Your task to perform on an android device: Open the phone app and click the voicemail tab. Image 0: 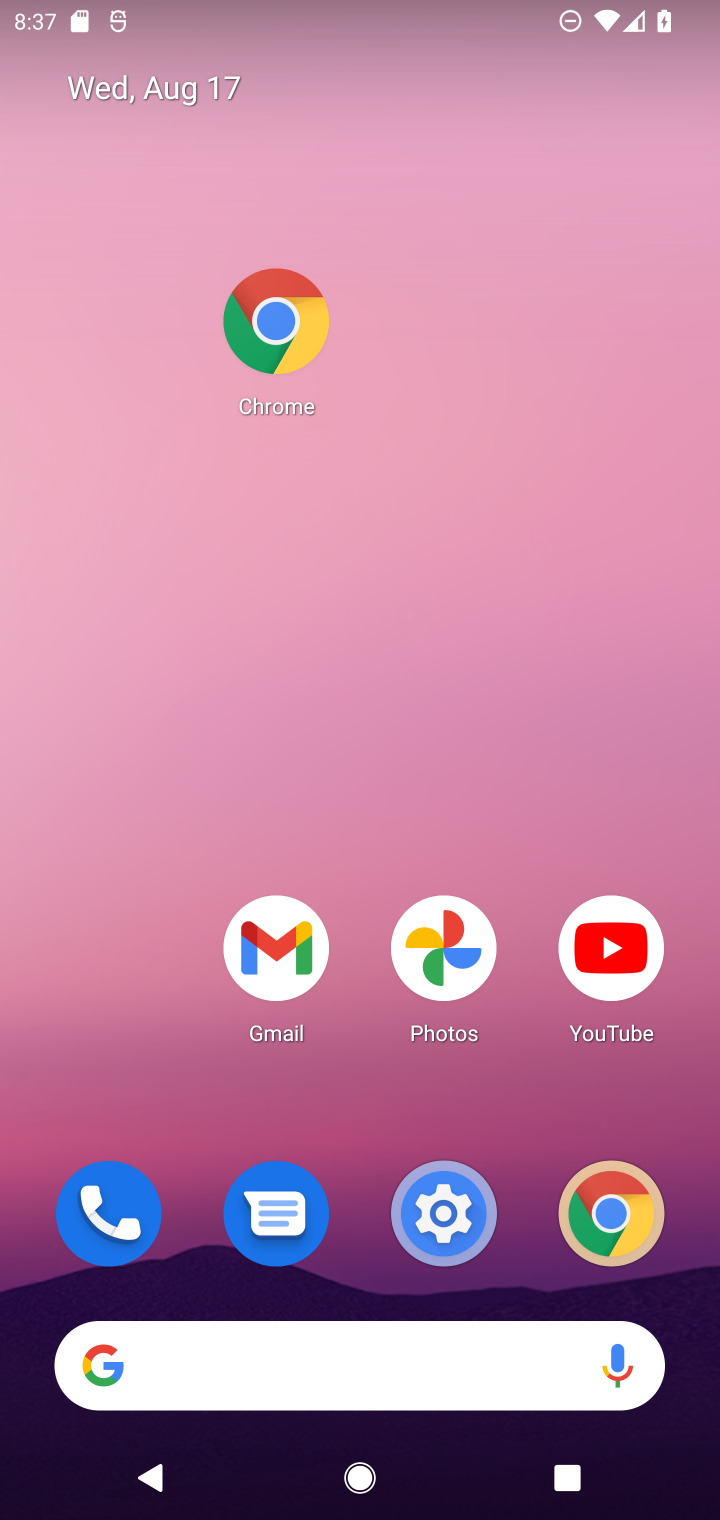
Step 0: click (447, 1206)
Your task to perform on an android device: Open the phone app and click the voicemail tab. Image 1: 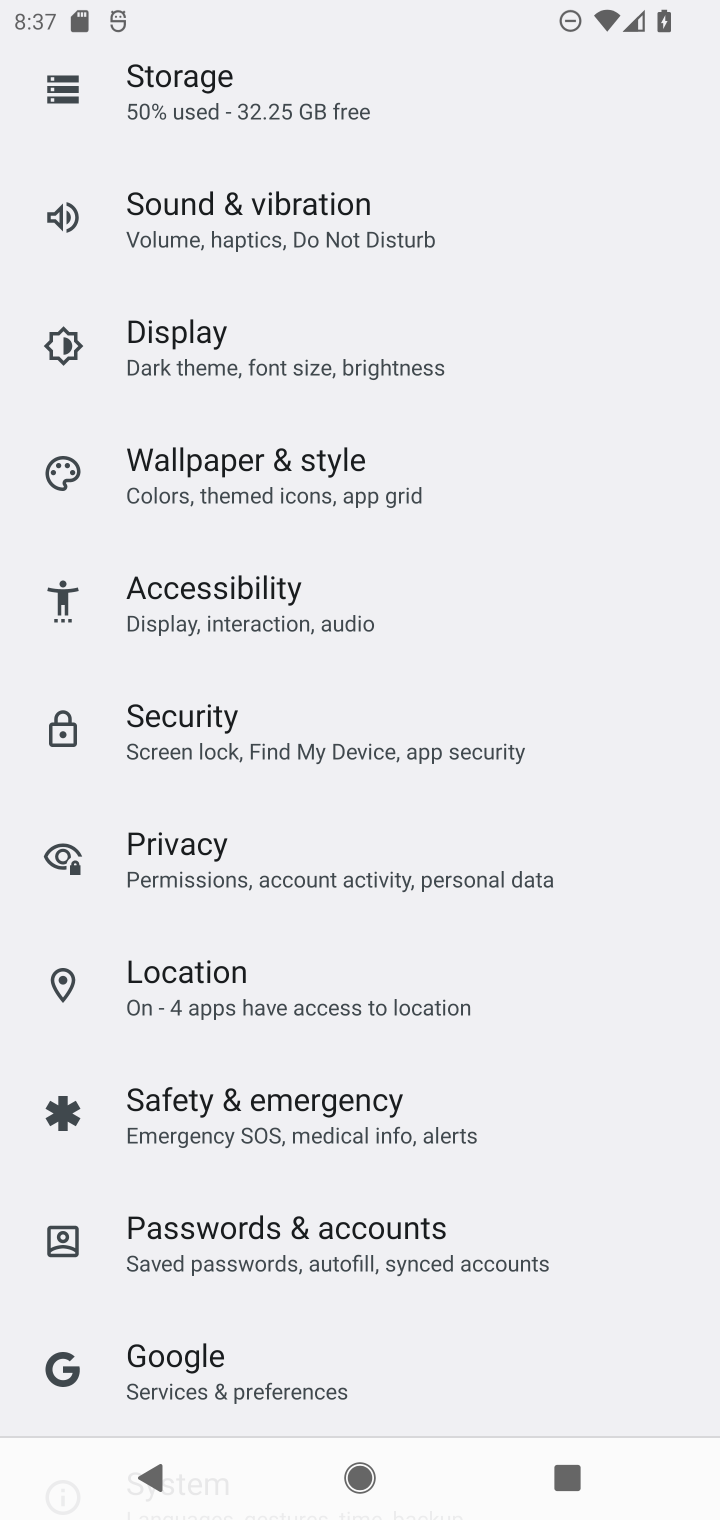
Step 1: press home button
Your task to perform on an android device: Open the phone app and click the voicemail tab. Image 2: 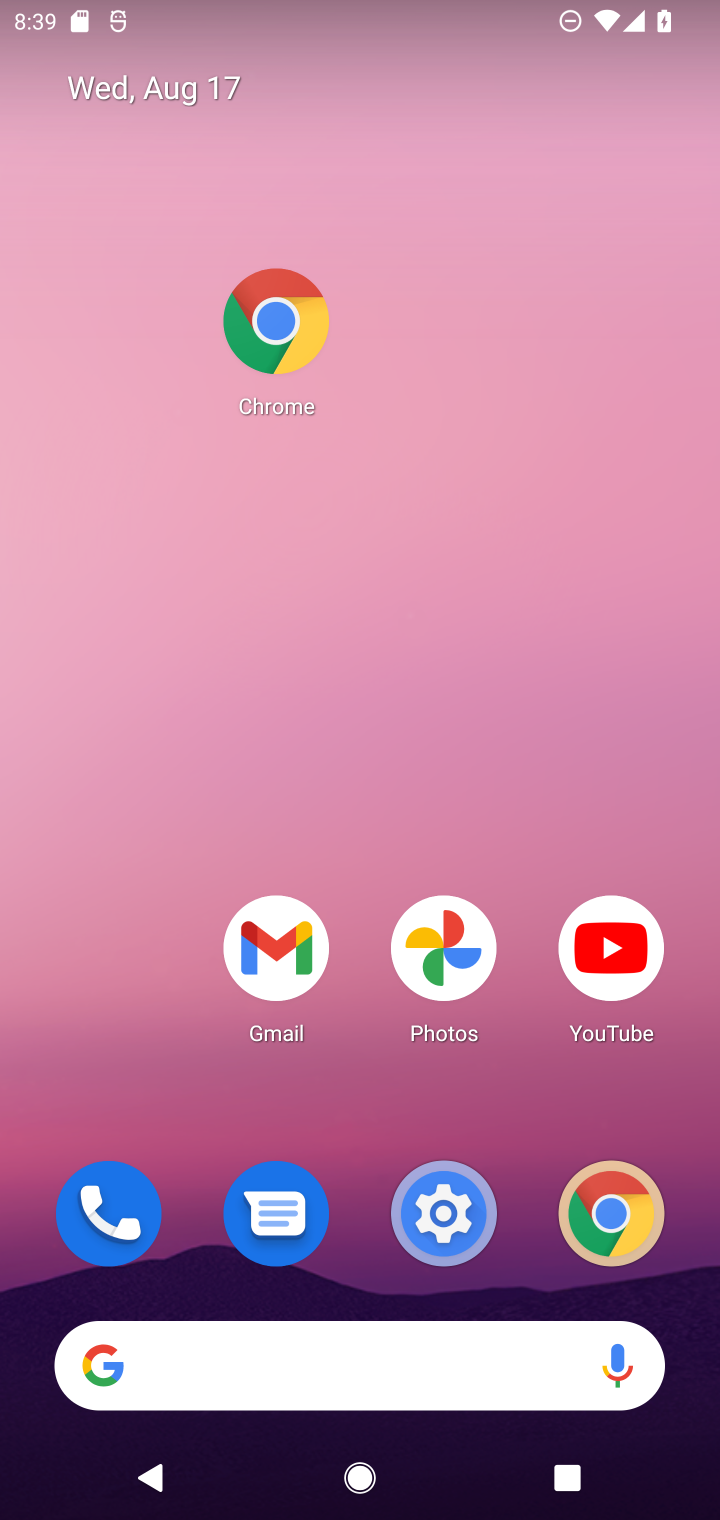
Step 2: click (488, 1271)
Your task to perform on an android device: Open the phone app and click the voicemail tab. Image 3: 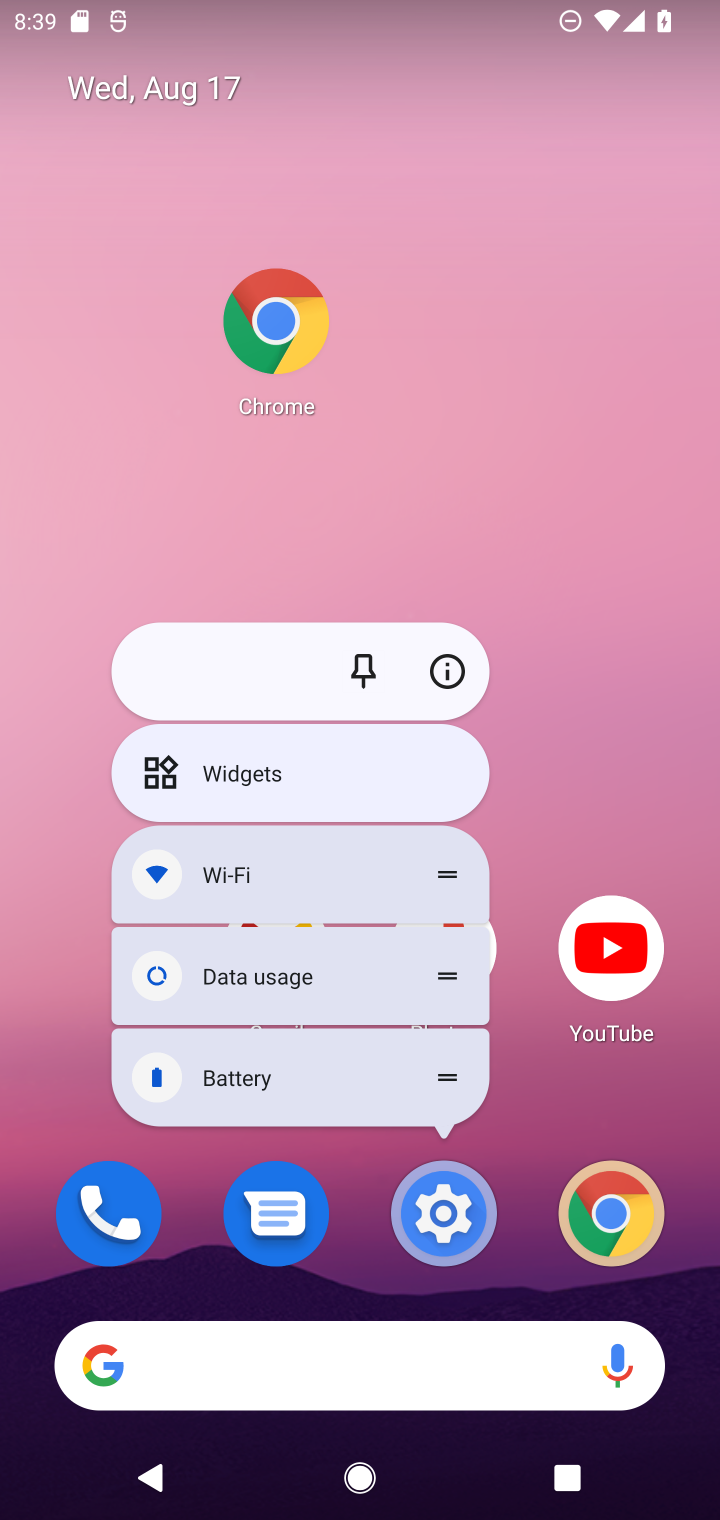
Step 3: click (460, 532)
Your task to perform on an android device: Open the phone app and click the voicemail tab. Image 4: 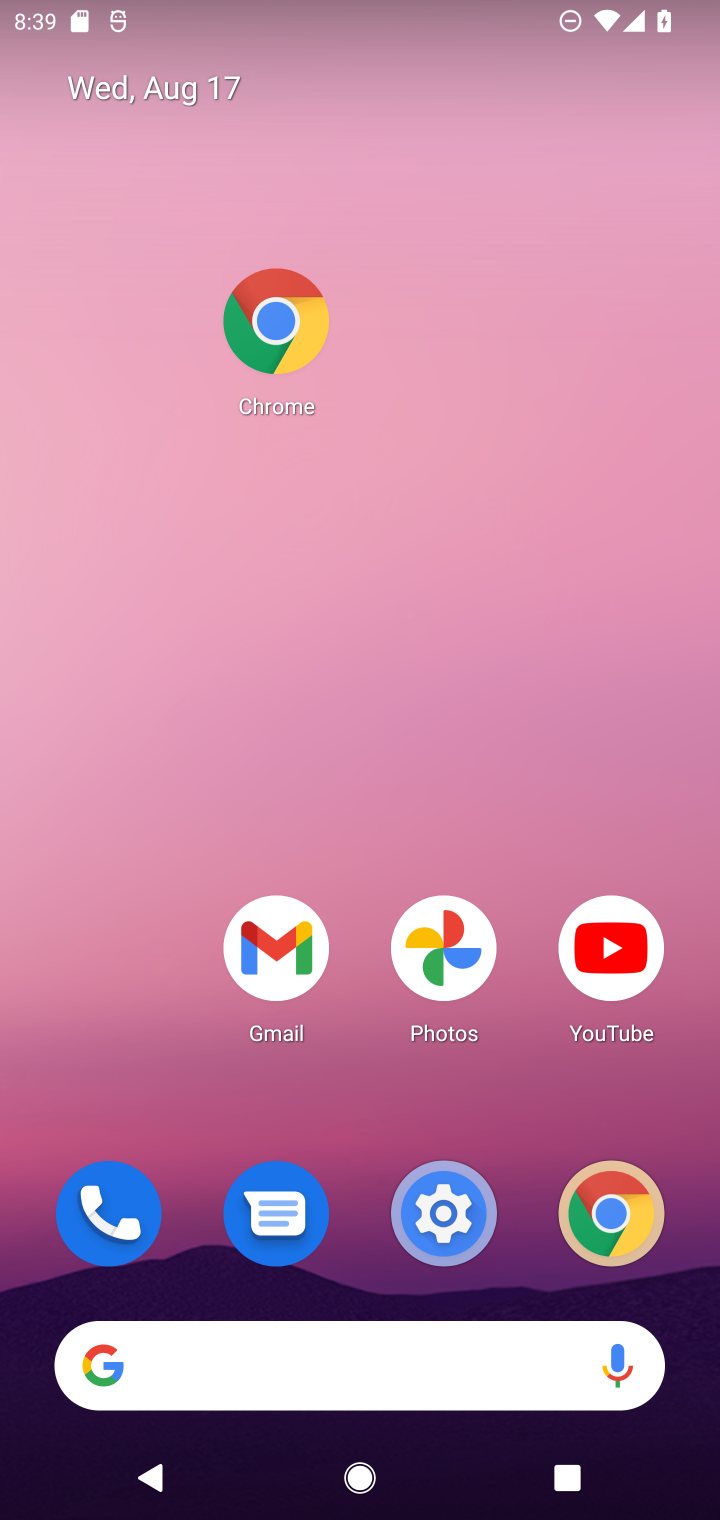
Step 4: click (69, 1199)
Your task to perform on an android device: Open the phone app and click the voicemail tab. Image 5: 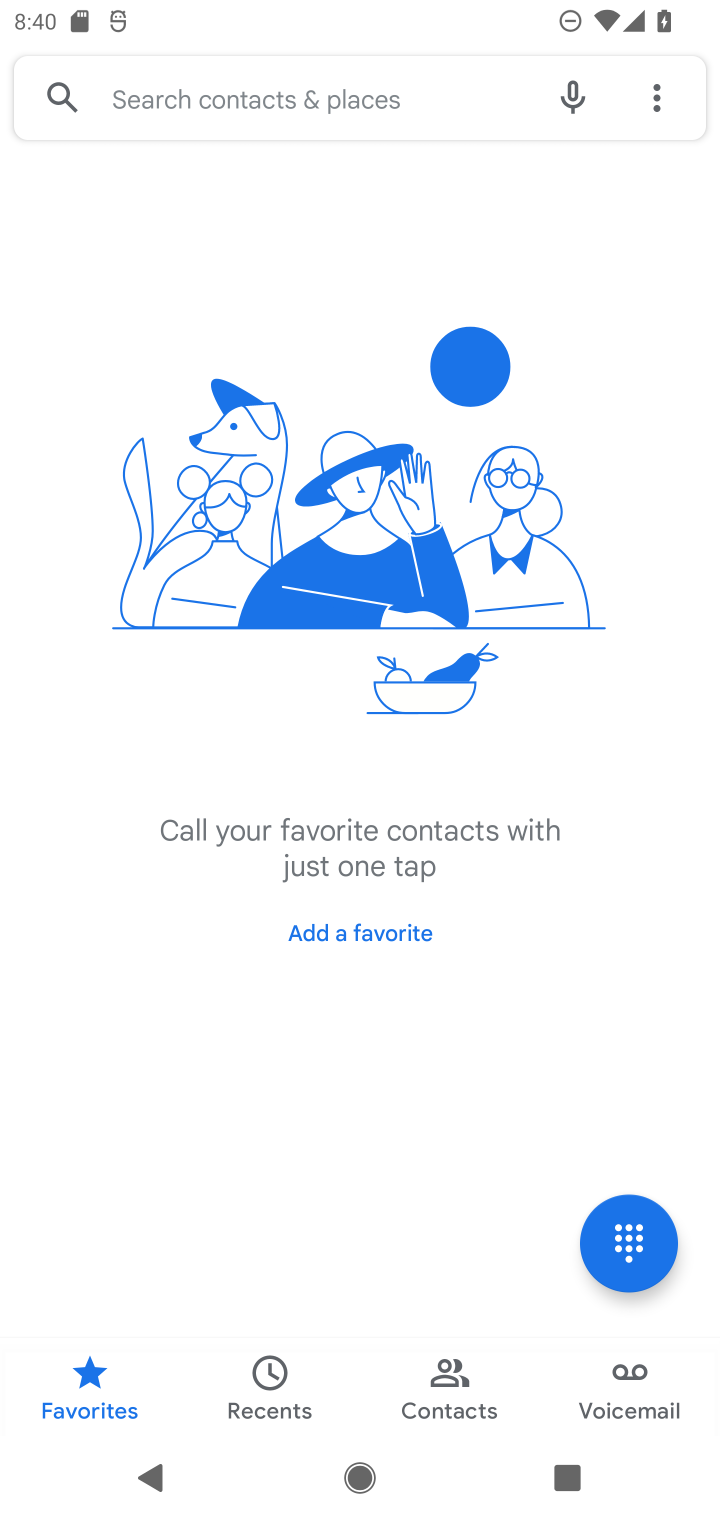
Step 5: click (622, 1375)
Your task to perform on an android device: Open the phone app and click the voicemail tab. Image 6: 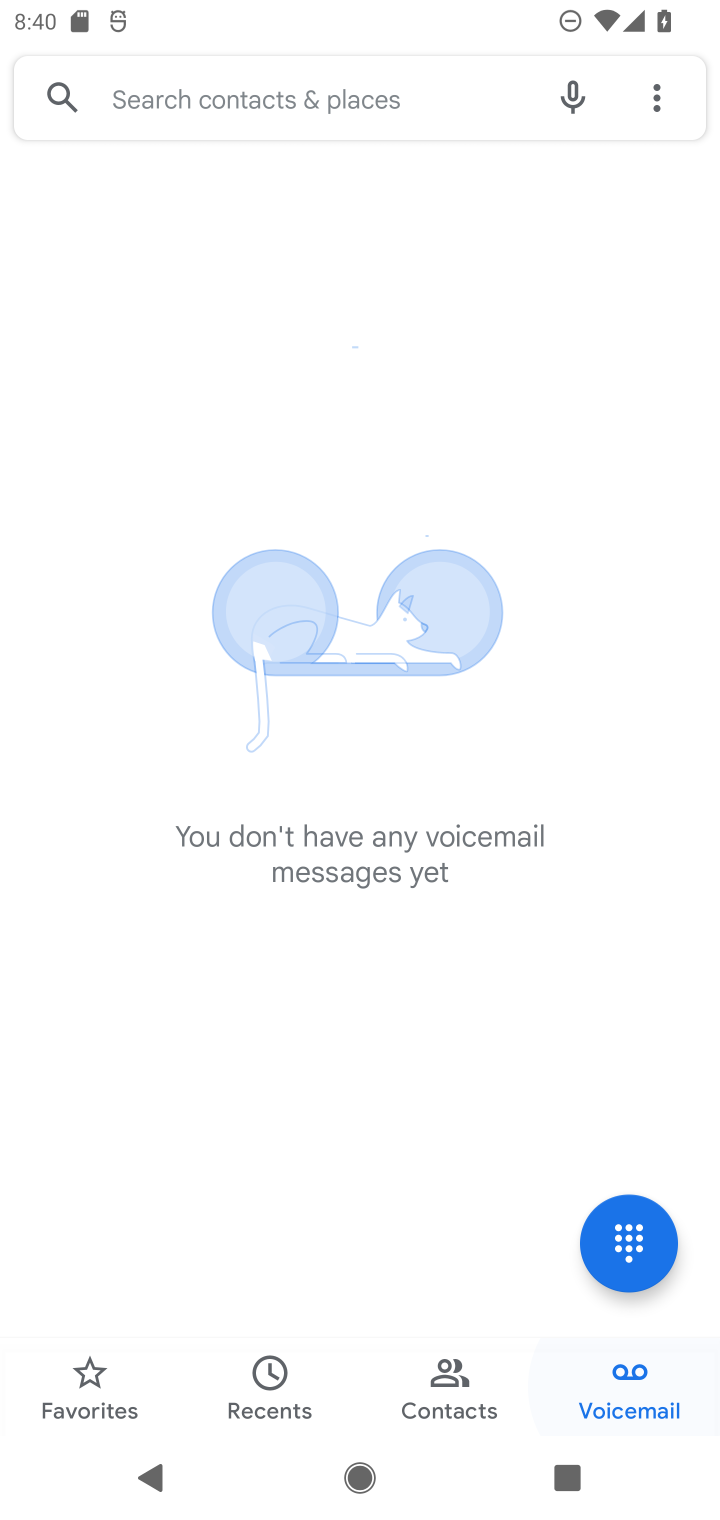
Step 6: task complete